Your task to perform on an android device: open app "Roku - Official Remote Control" Image 0: 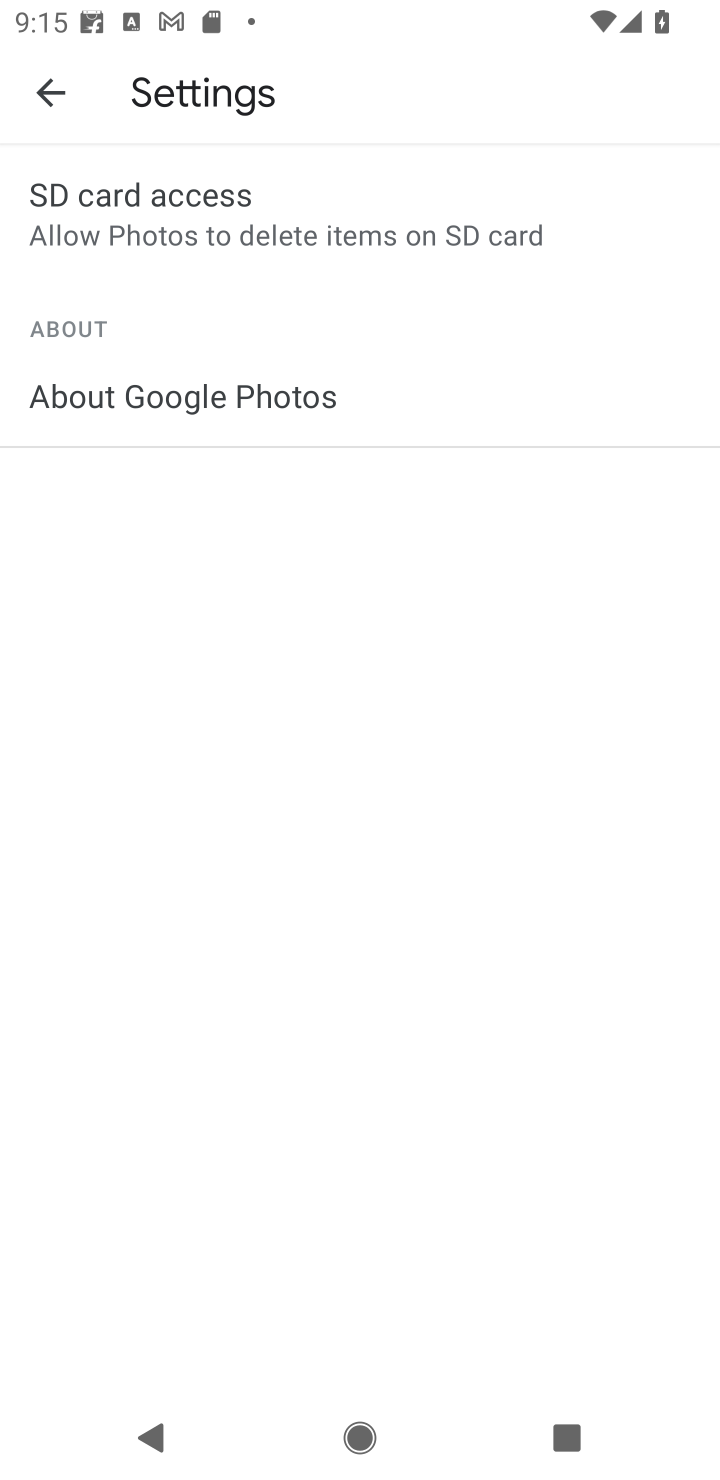
Step 0: press home button
Your task to perform on an android device: open app "Roku - Official Remote Control" Image 1: 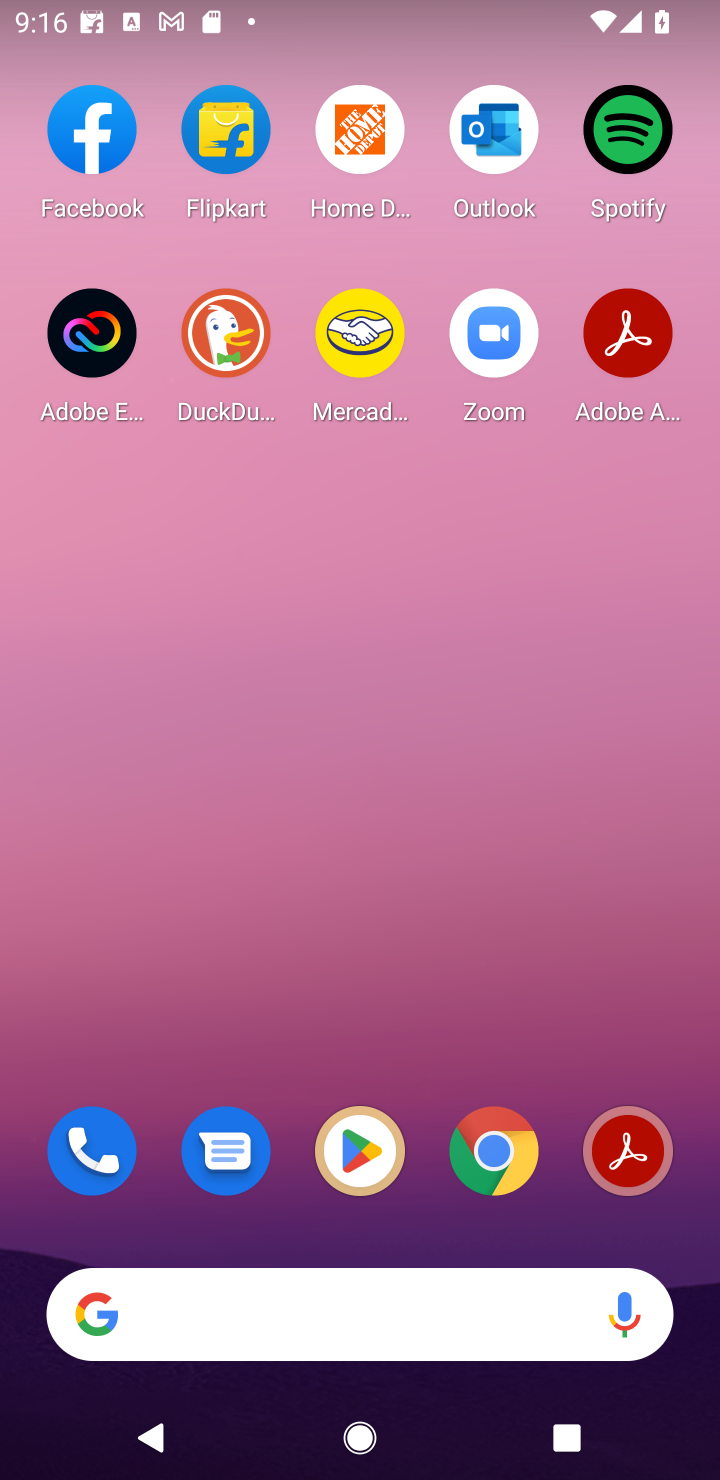
Step 1: press home button
Your task to perform on an android device: open app "Roku - Official Remote Control" Image 2: 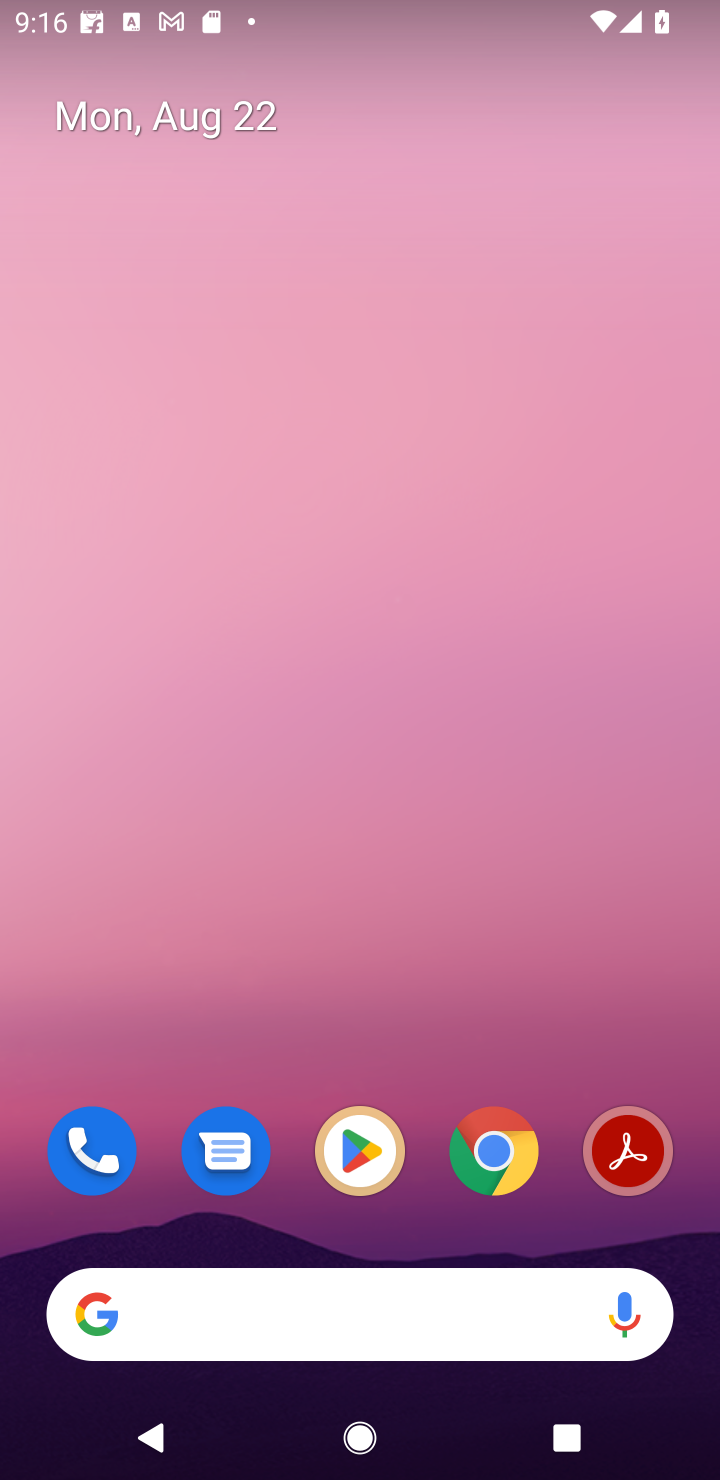
Step 2: click (366, 1145)
Your task to perform on an android device: open app "Roku - Official Remote Control" Image 3: 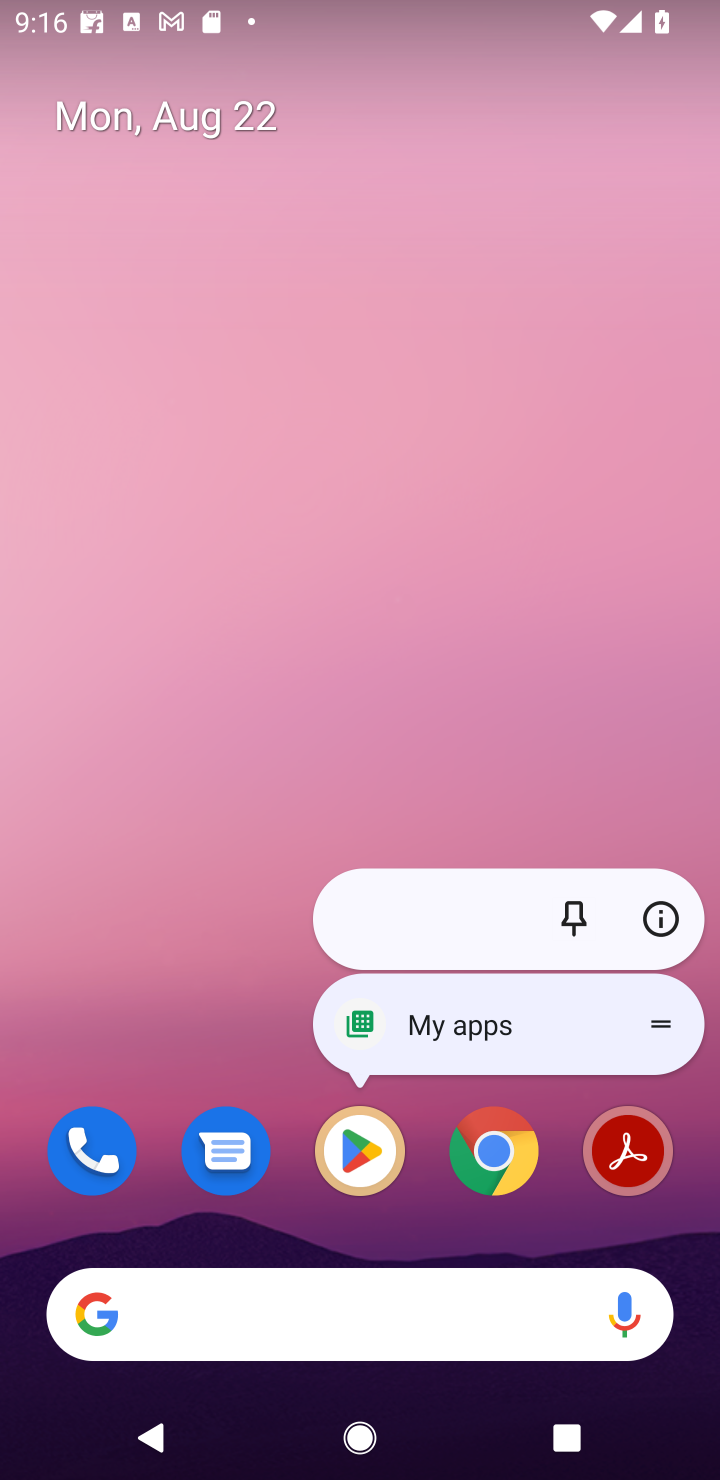
Step 3: click (366, 1154)
Your task to perform on an android device: open app "Roku - Official Remote Control" Image 4: 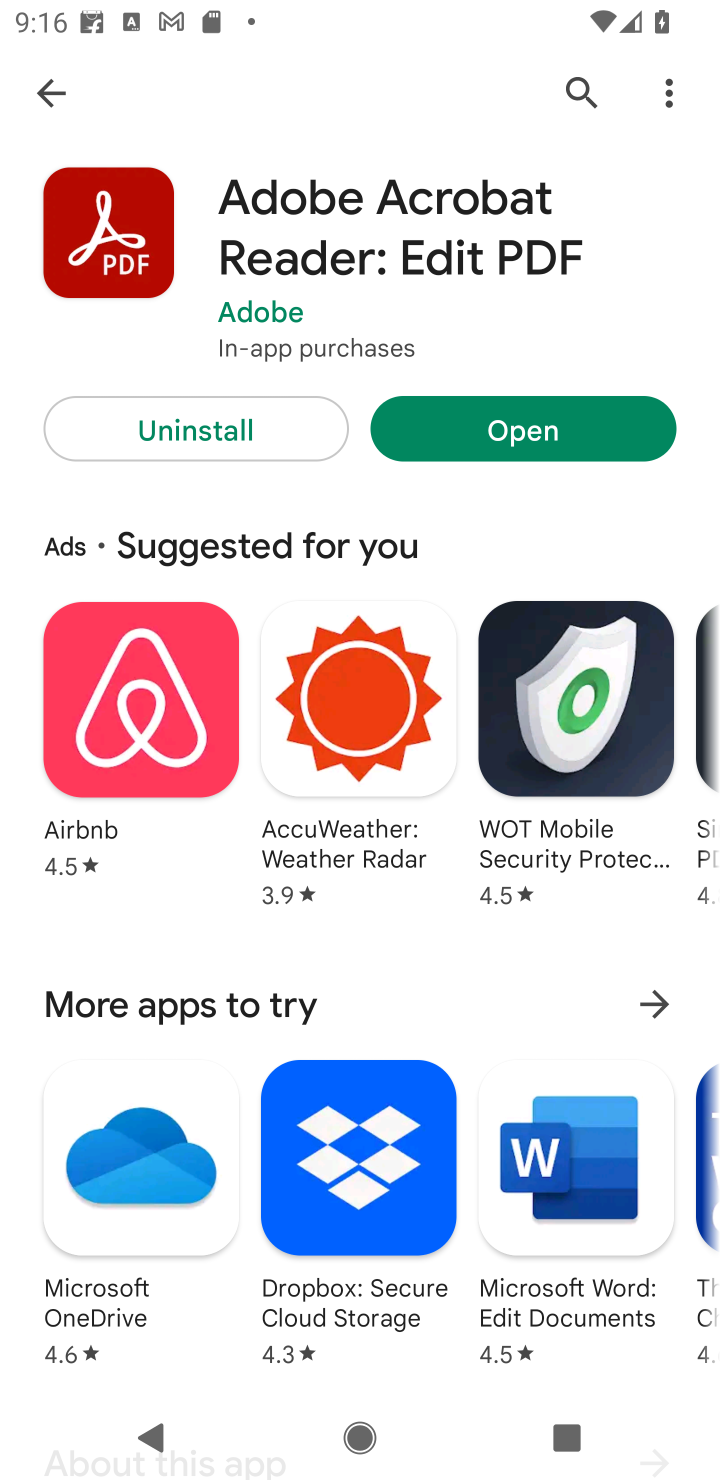
Step 4: click (573, 84)
Your task to perform on an android device: open app "Roku - Official Remote Control" Image 5: 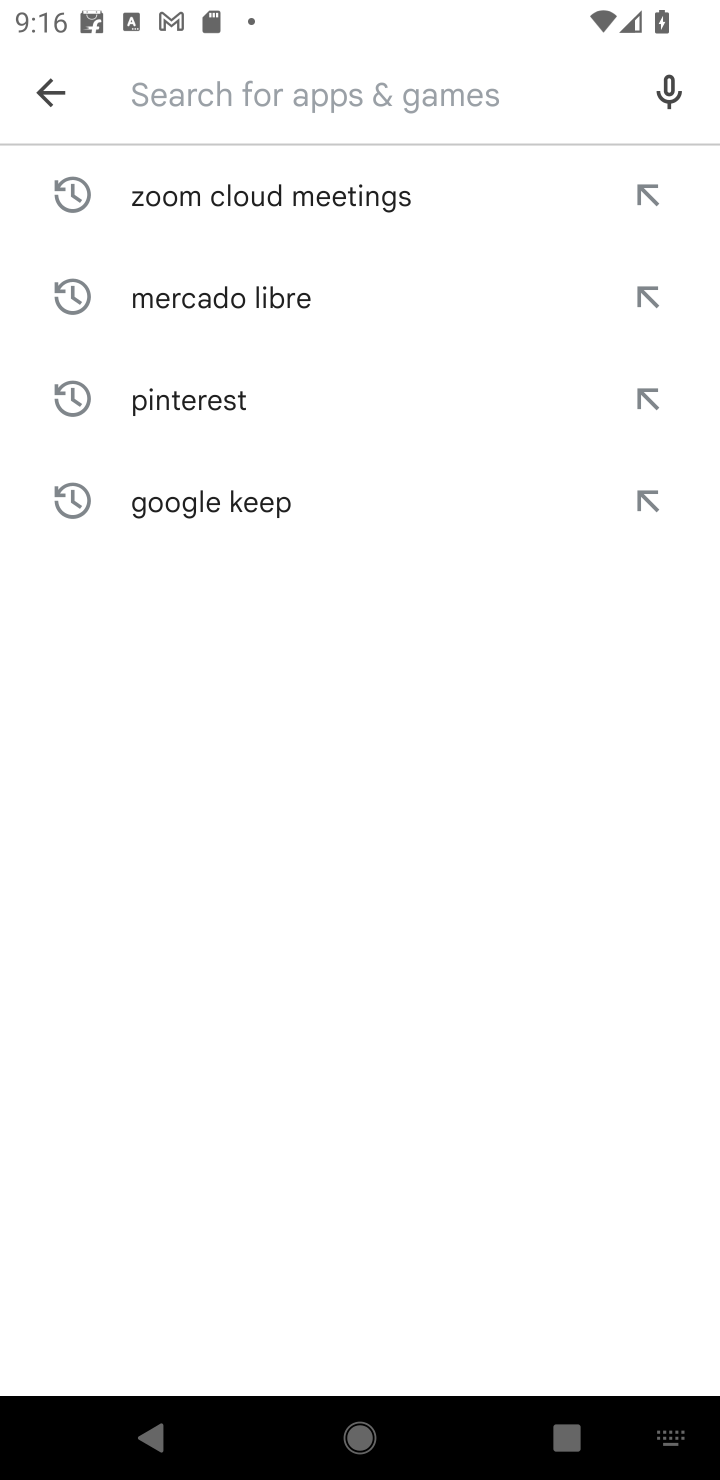
Step 5: type "Roku - Official Remote Control"
Your task to perform on an android device: open app "Roku - Official Remote Control" Image 6: 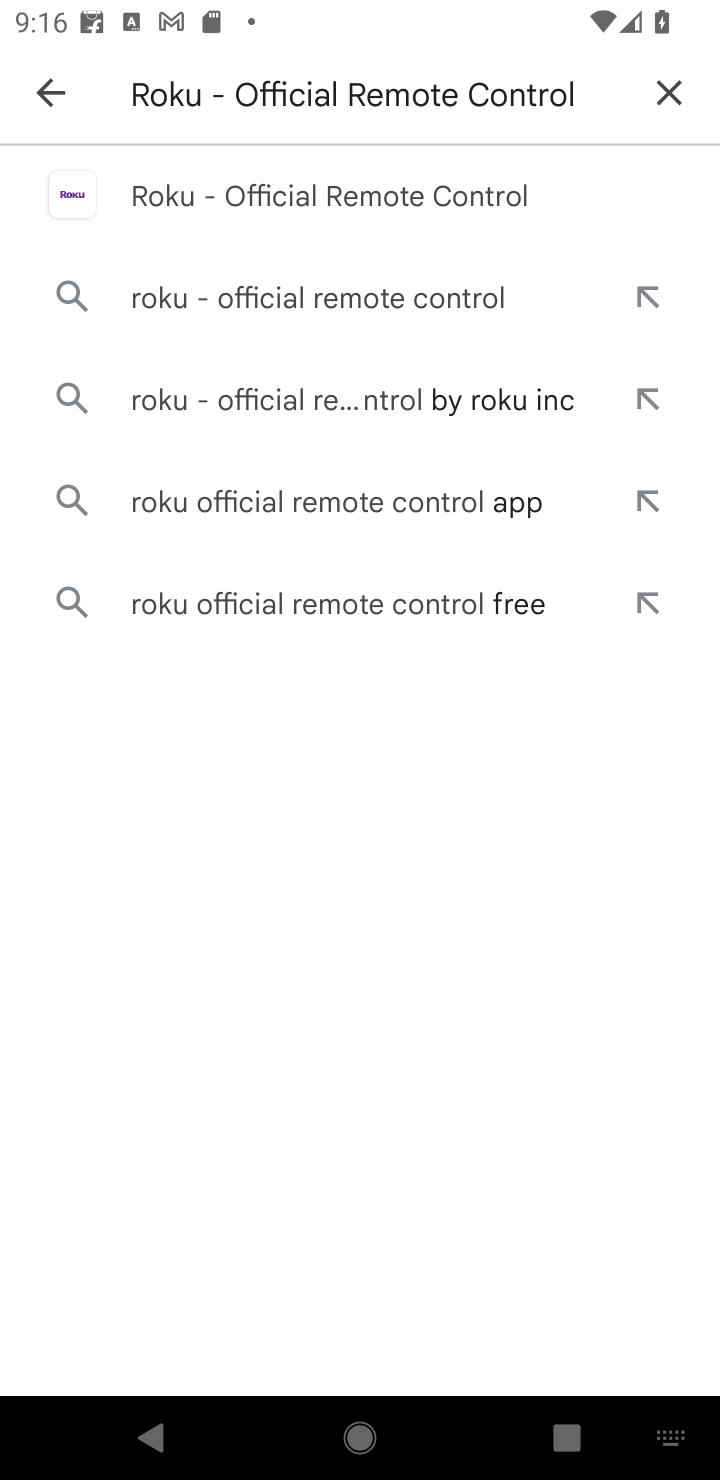
Step 6: click (269, 182)
Your task to perform on an android device: open app "Roku - Official Remote Control" Image 7: 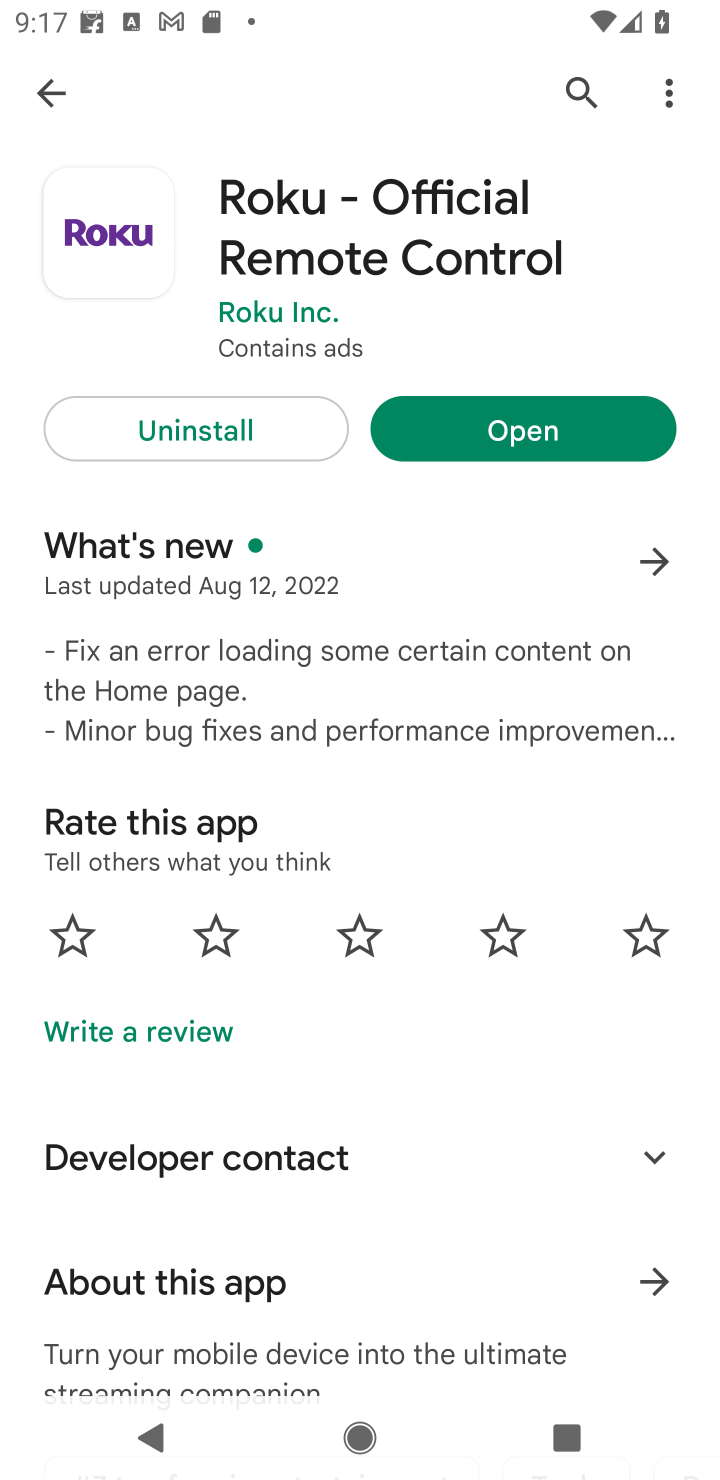
Step 7: click (534, 407)
Your task to perform on an android device: open app "Roku - Official Remote Control" Image 8: 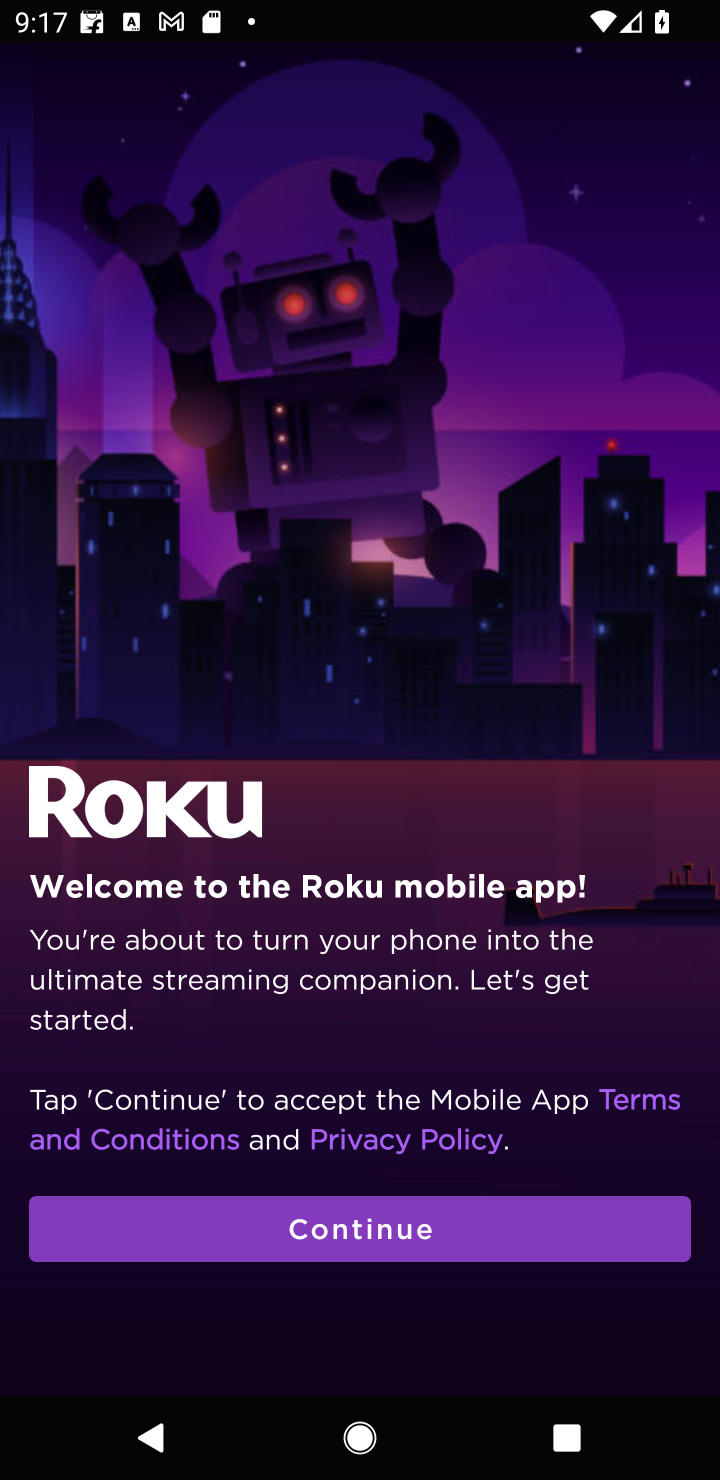
Step 8: task complete